Your task to perform on an android device: Open Google Image 0: 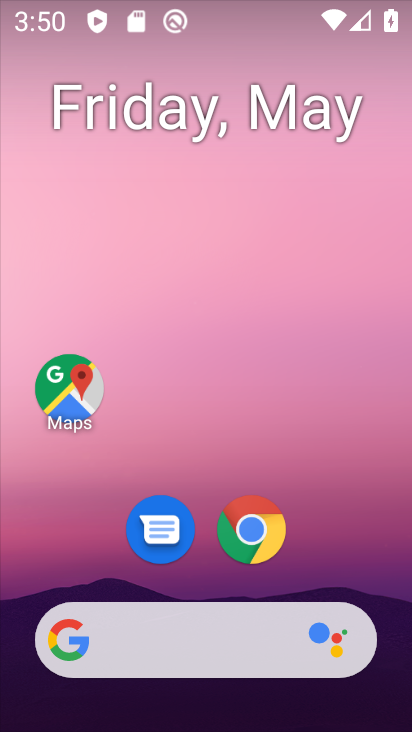
Step 0: click (237, 643)
Your task to perform on an android device: Open Google Image 1: 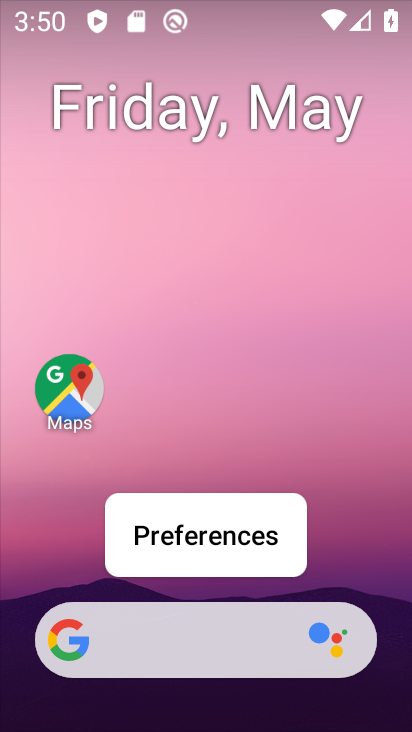
Step 1: click (347, 560)
Your task to perform on an android device: Open Google Image 2: 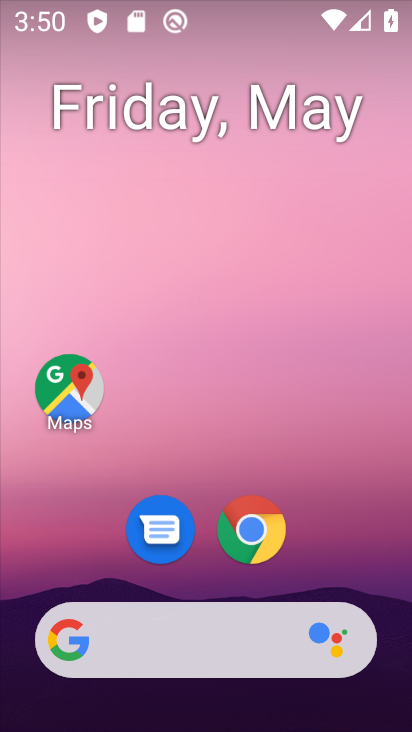
Step 2: drag from (322, 690) to (251, 37)
Your task to perform on an android device: Open Google Image 3: 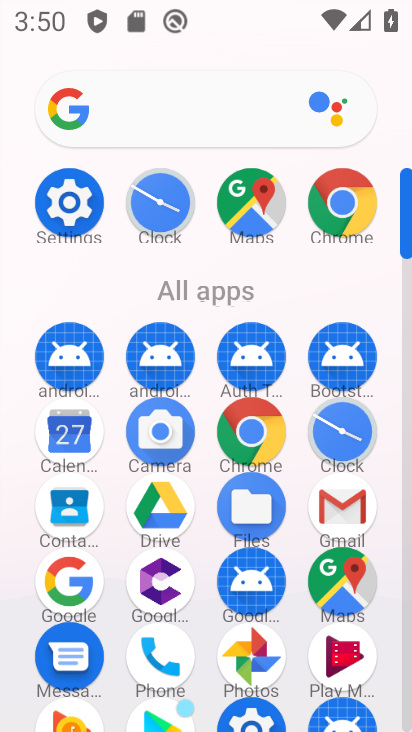
Step 3: click (62, 594)
Your task to perform on an android device: Open Google Image 4: 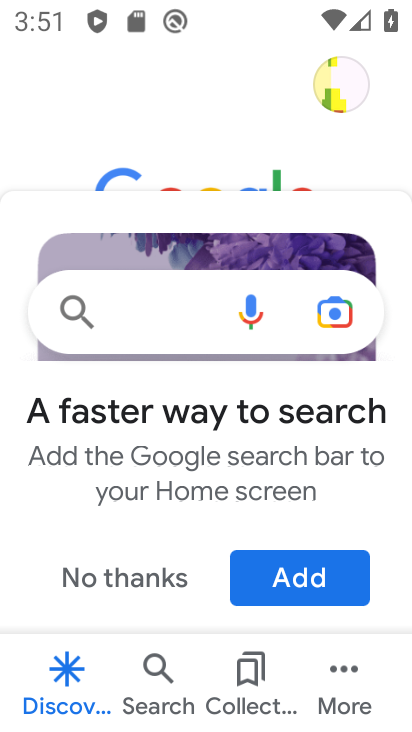
Step 4: task complete